Your task to perform on an android device: toggle javascript in the chrome app Image 0: 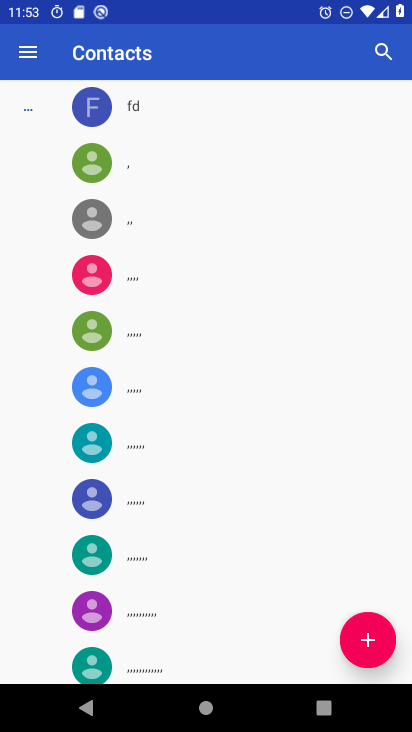
Step 0: press home button
Your task to perform on an android device: toggle javascript in the chrome app Image 1: 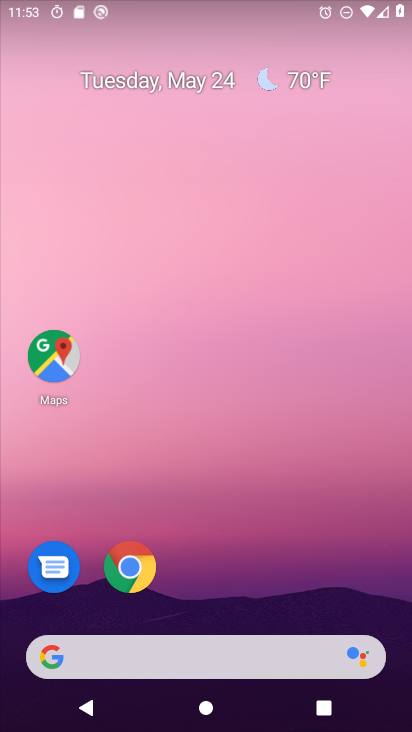
Step 1: drag from (397, 682) to (369, 246)
Your task to perform on an android device: toggle javascript in the chrome app Image 2: 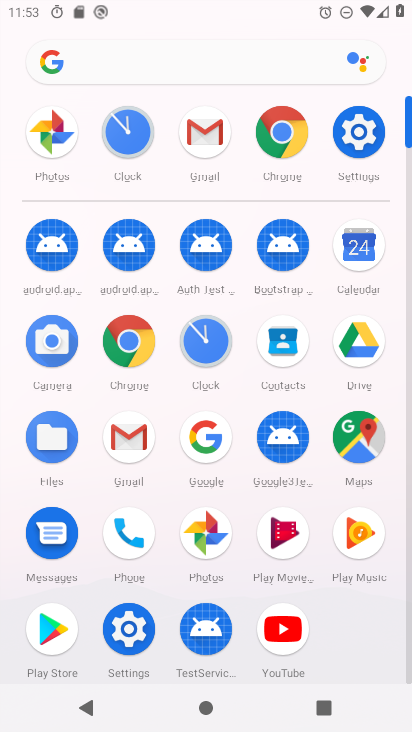
Step 2: click (126, 336)
Your task to perform on an android device: toggle javascript in the chrome app Image 3: 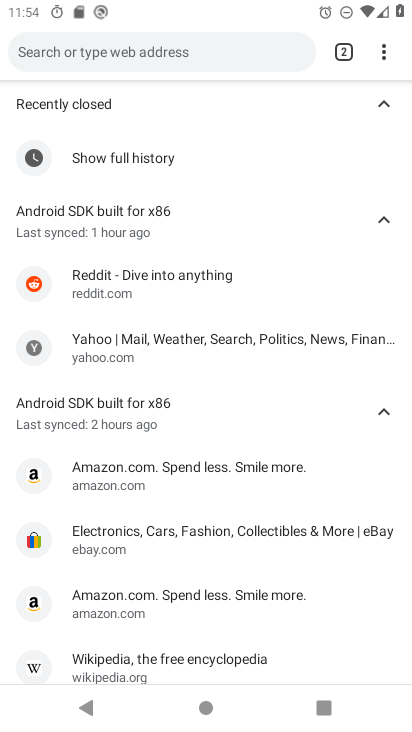
Step 3: click (382, 50)
Your task to perform on an android device: toggle javascript in the chrome app Image 4: 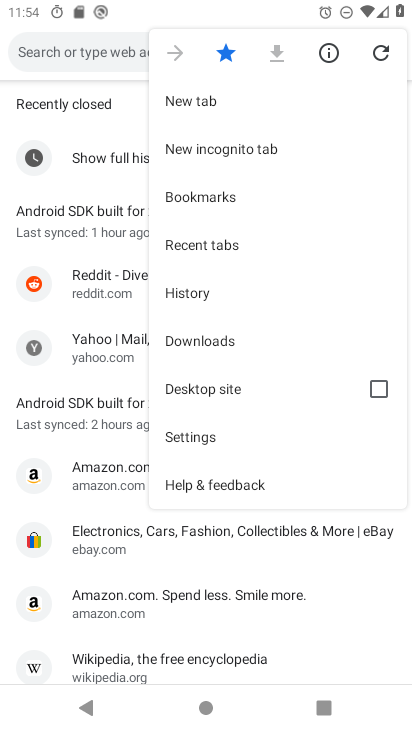
Step 4: click (179, 434)
Your task to perform on an android device: toggle javascript in the chrome app Image 5: 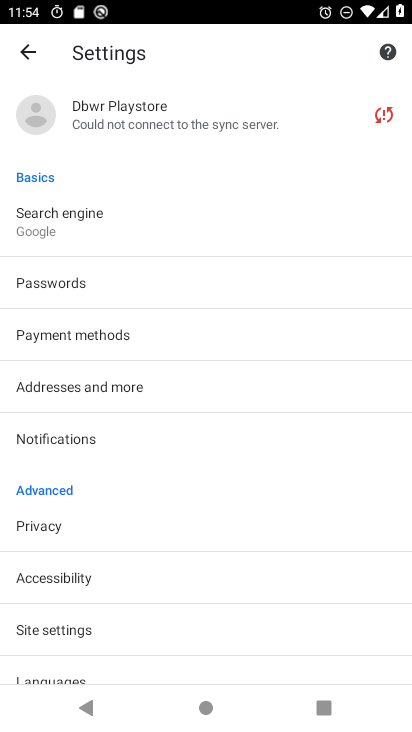
Step 5: drag from (227, 647) to (247, 349)
Your task to perform on an android device: toggle javascript in the chrome app Image 6: 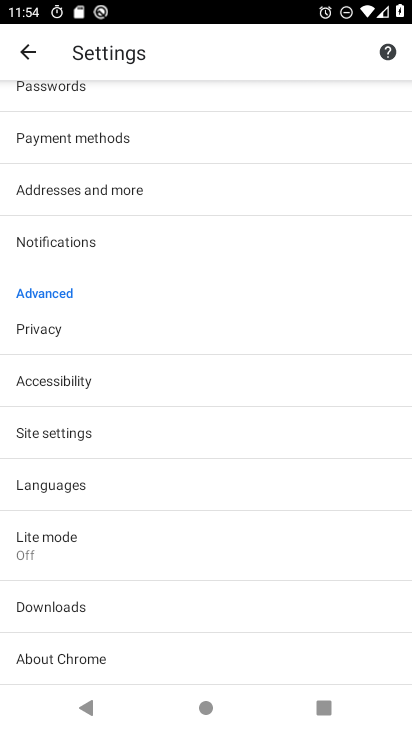
Step 6: click (78, 428)
Your task to perform on an android device: toggle javascript in the chrome app Image 7: 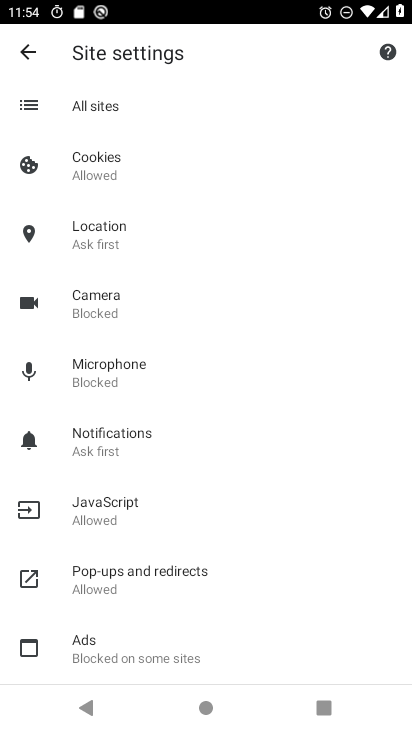
Step 7: click (104, 515)
Your task to perform on an android device: toggle javascript in the chrome app Image 8: 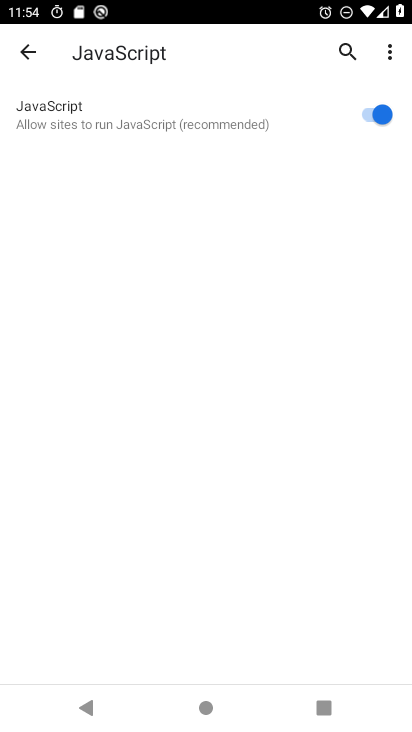
Step 8: click (370, 114)
Your task to perform on an android device: toggle javascript in the chrome app Image 9: 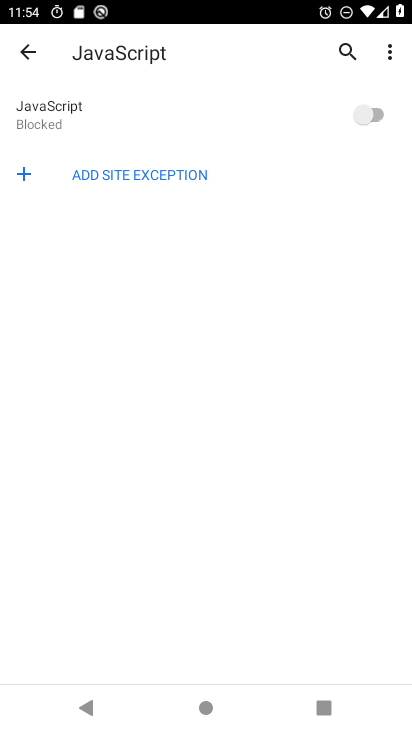
Step 9: task complete